Your task to perform on an android device: check android version Image 0: 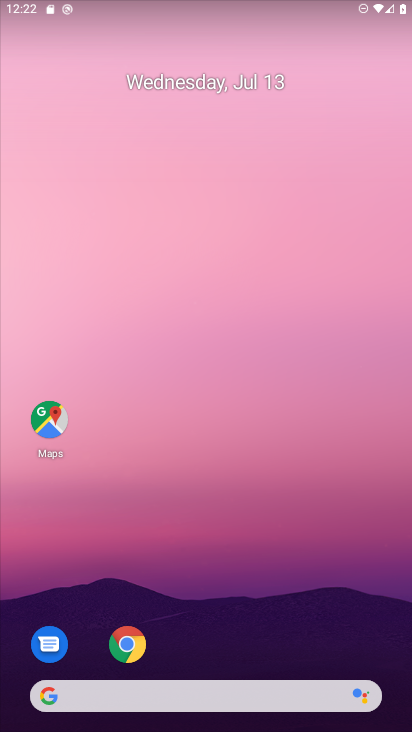
Step 0: drag from (319, 729) to (208, 0)
Your task to perform on an android device: check android version Image 1: 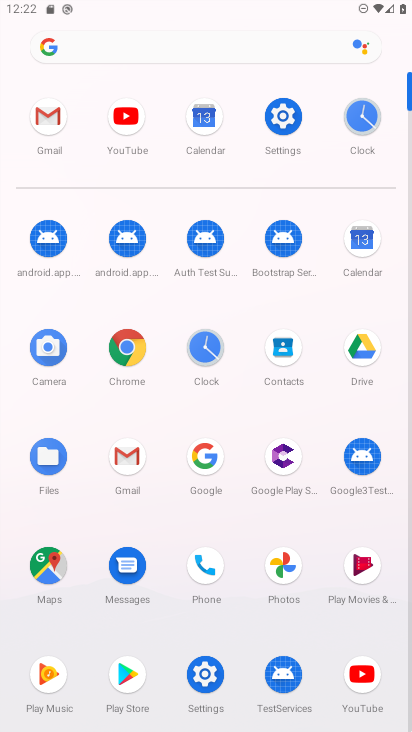
Step 1: click (279, 112)
Your task to perform on an android device: check android version Image 2: 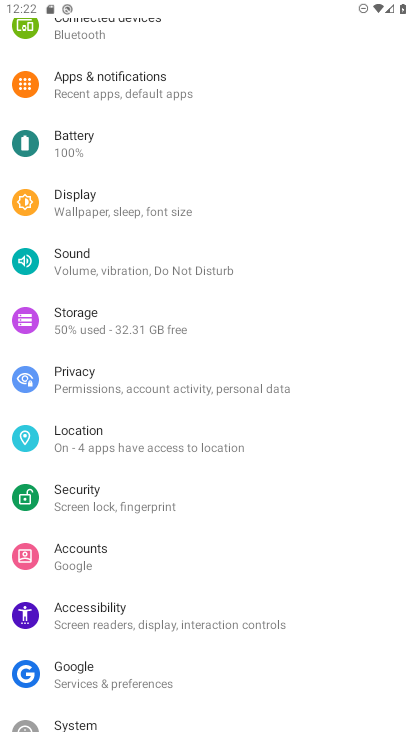
Step 2: drag from (229, 649) to (210, 91)
Your task to perform on an android device: check android version Image 3: 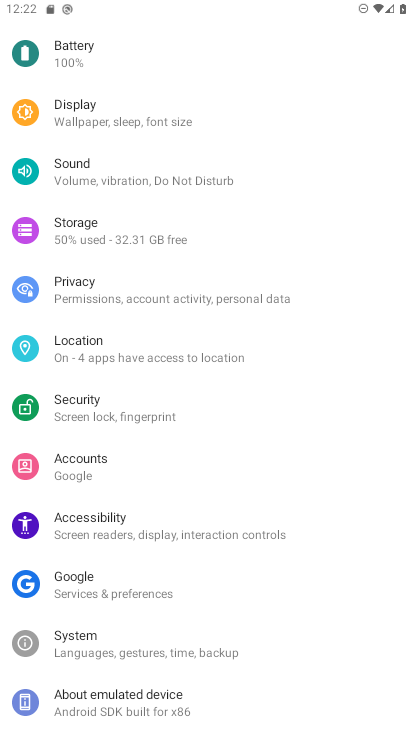
Step 3: click (136, 694)
Your task to perform on an android device: check android version Image 4: 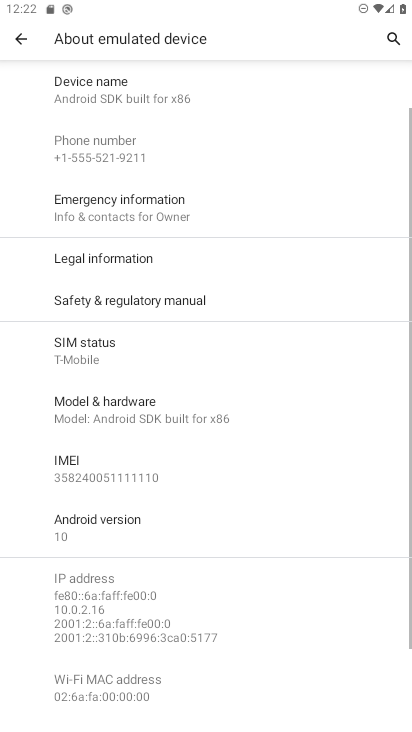
Step 4: task complete